Your task to perform on an android device: Open Youtube and go to the subscriptions tab Image 0: 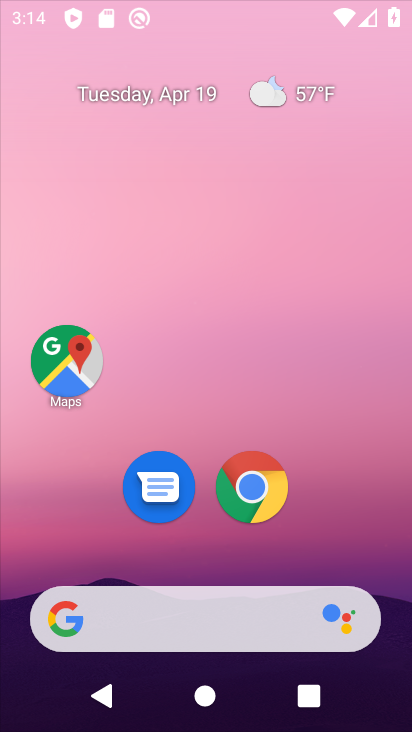
Step 0: drag from (364, 513) to (371, 90)
Your task to perform on an android device: Open Youtube and go to the subscriptions tab Image 1: 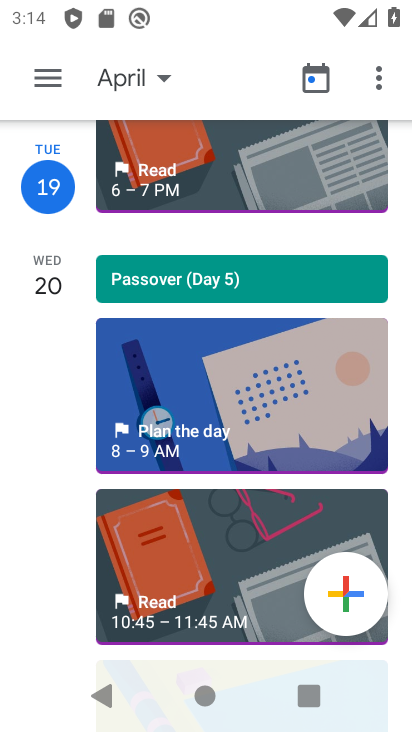
Step 1: press home button
Your task to perform on an android device: Open Youtube and go to the subscriptions tab Image 2: 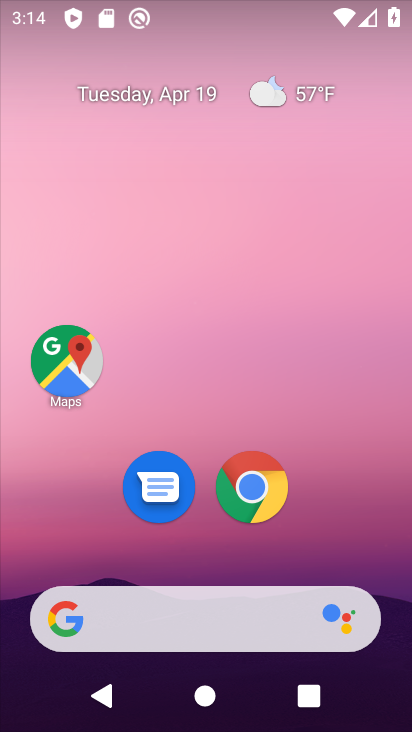
Step 2: drag from (371, 514) to (410, 292)
Your task to perform on an android device: Open Youtube and go to the subscriptions tab Image 3: 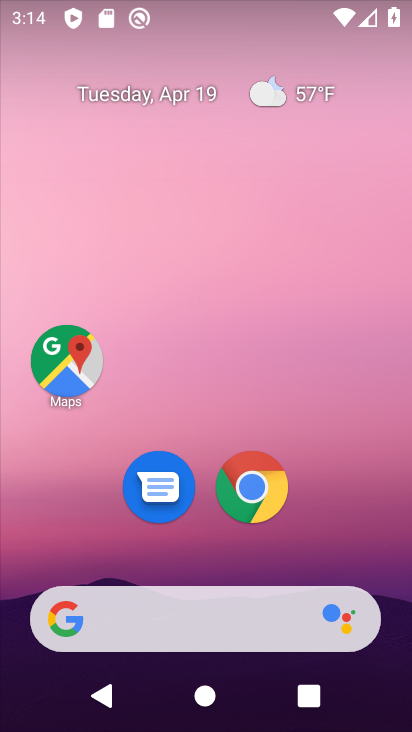
Step 3: drag from (359, 497) to (333, 98)
Your task to perform on an android device: Open Youtube and go to the subscriptions tab Image 4: 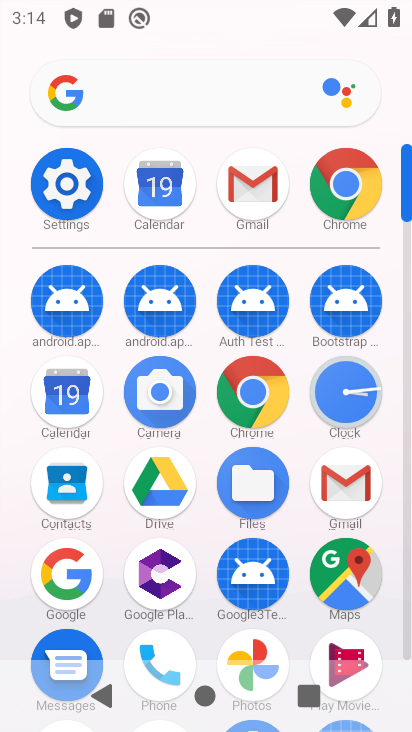
Step 4: drag from (293, 615) to (286, 246)
Your task to perform on an android device: Open Youtube and go to the subscriptions tab Image 5: 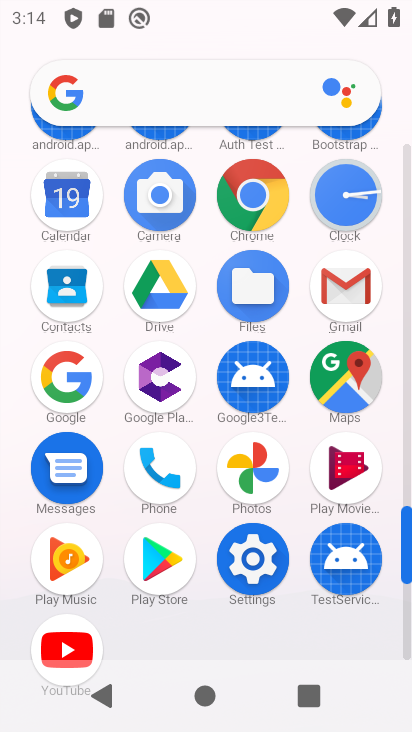
Step 5: click (87, 648)
Your task to perform on an android device: Open Youtube and go to the subscriptions tab Image 6: 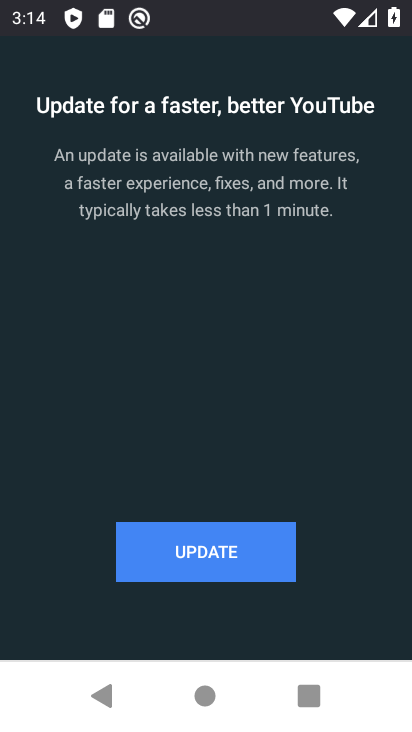
Step 6: click (212, 546)
Your task to perform on an android device: Open Youtube and go to the subscriptions tab Image 7: 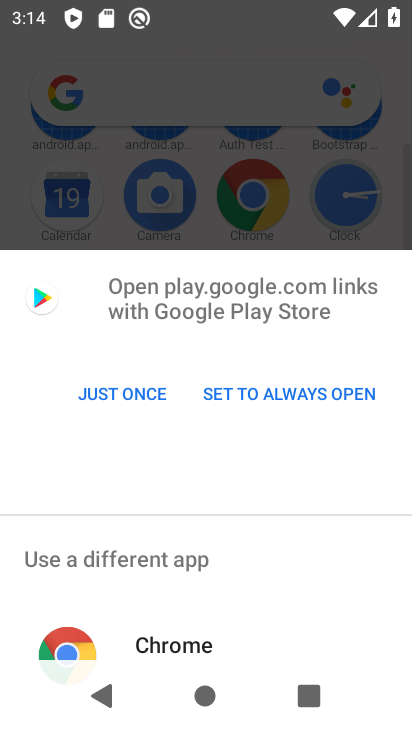
Step 7: click (139, 384)
Your task to perform on an android device: Open Youtube and go to the subscriptions tab Image 8: 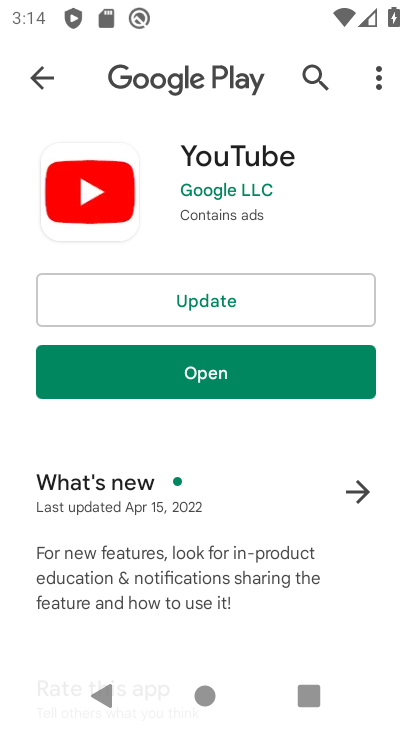
Step 8: click (246, 285)
Your task to perform on an android device: Open Youtube and go to the subscriptions tab Image 9: 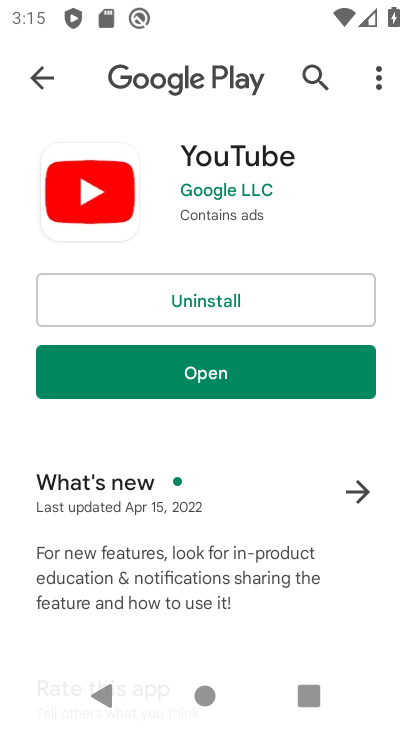
Step 9: click (263, 365)
Your task to perform on an android device: Open Youtube and go to the subscriptions tab Image 10: 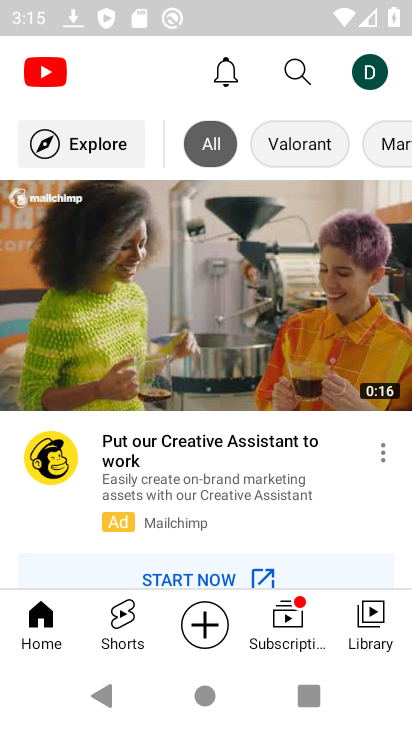
Step 10: click (271, 623)
Your task to perform on an android device: Open Youtube and go to the subscriptions tab Image 11: 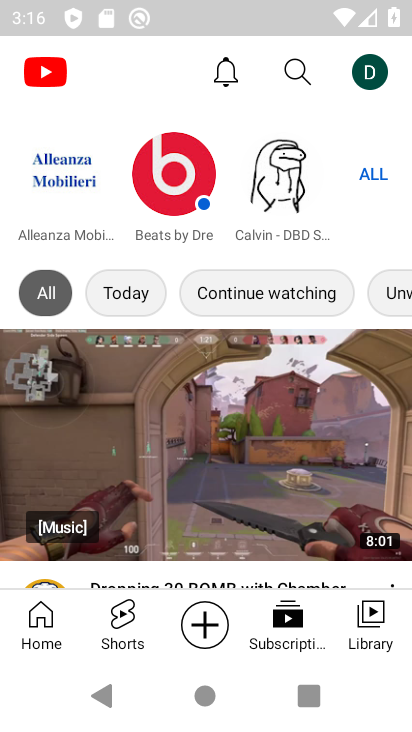
Step 11: task complete